Your task to perform on an android device: see tabs open on other devices in the chrome app Image 0: 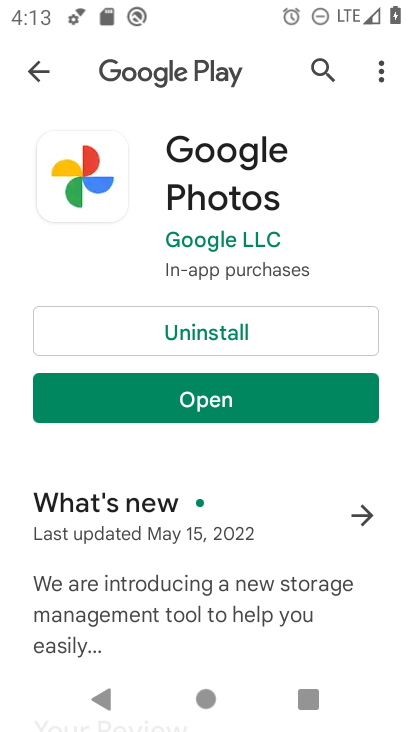
Step 0: press home button
Your task to perform on an android device: see tabs open on other devices in the chrome app Image 1: 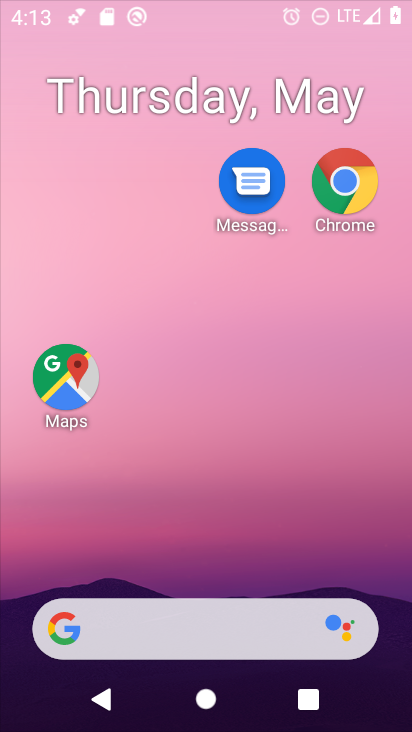
Step 1: drag from (241, 613) to (283, 32)
Your task to perform on an android device: see tabs open on other devices in the chrome app Image 2: 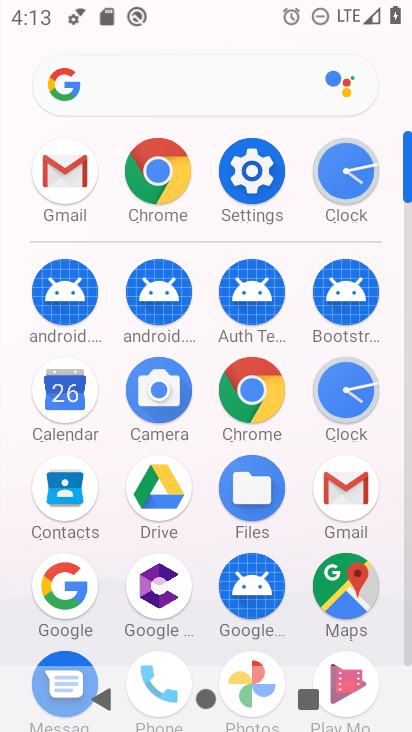
Step 2: click (263, 383)
Your task to perform on an android device: see tabs open on other devices in the chrome app Image 3: 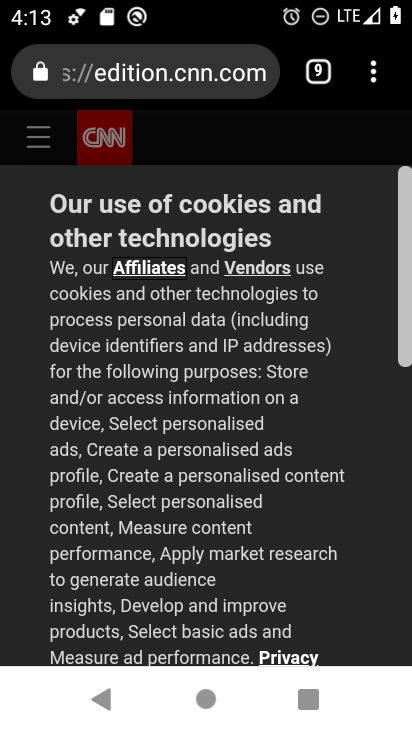
Step 3: task complete